Your task to perform on an android device: refresh tabs in the chrome app Image 0: 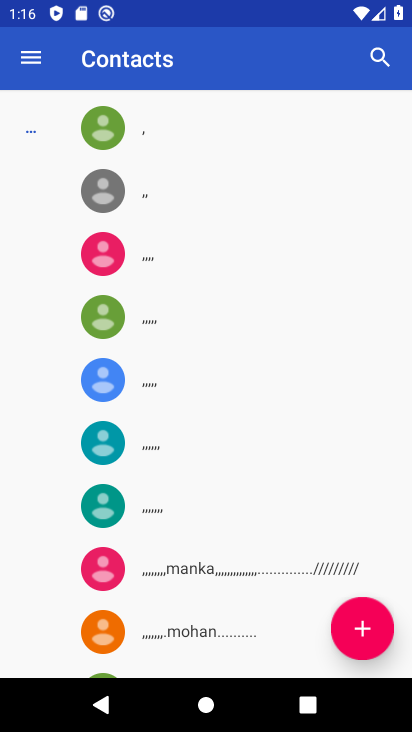
Step 0: press home button
Your task to perform on an android device: refresh tabs in the chrome app Image 1: 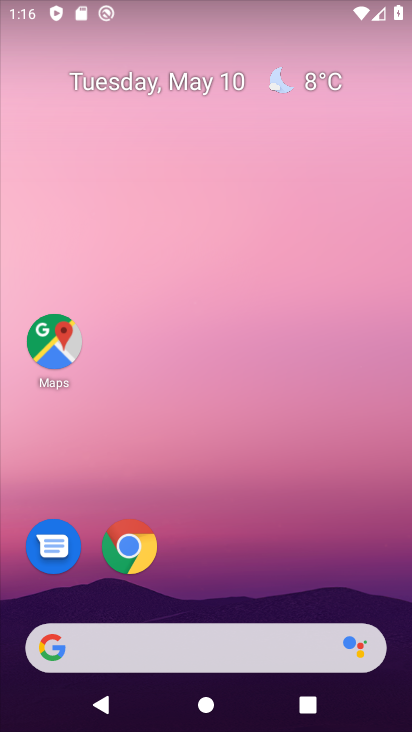
Step 1: click (129, 544)
Your task to perform on an android device: refresh tabs in the chrome app Image 2: 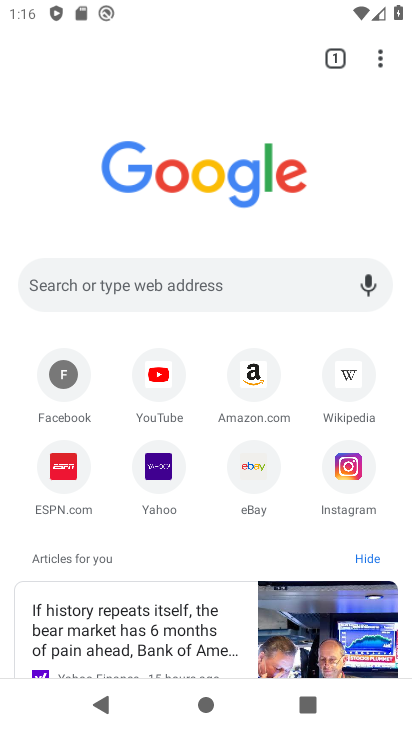
Step 2: click (379, 63)
Your task to perform on an android device: refresh tabs in the chrome app Image 3: 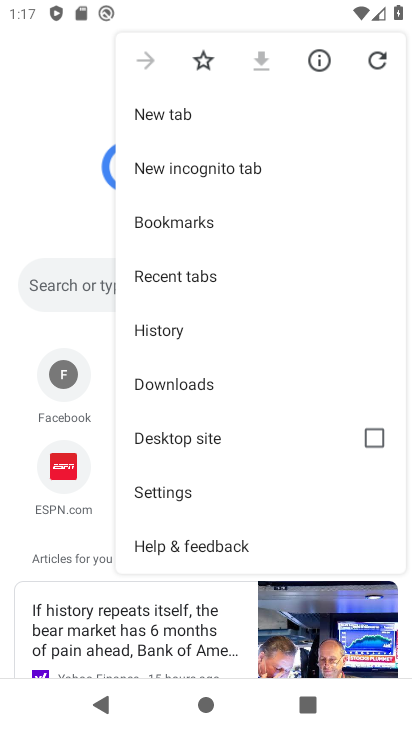
Step 3: click (383, 58)
Your task to perform on an android device: refresh tabs in the chrome app Image 4: 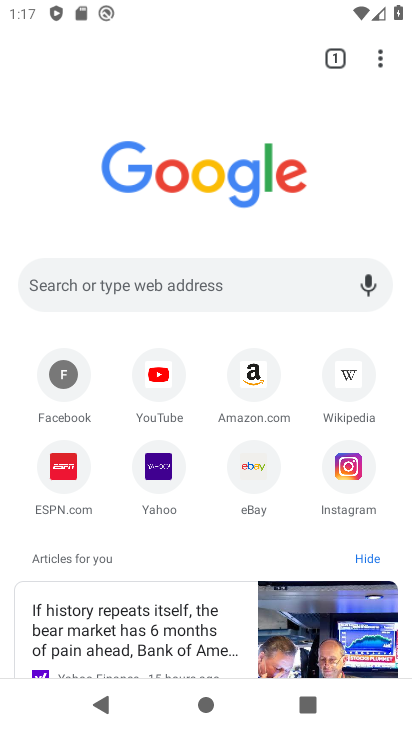
Step 4: task complete